Your task to perform on an android device: install app "PUBG MOBILE" Image 0: 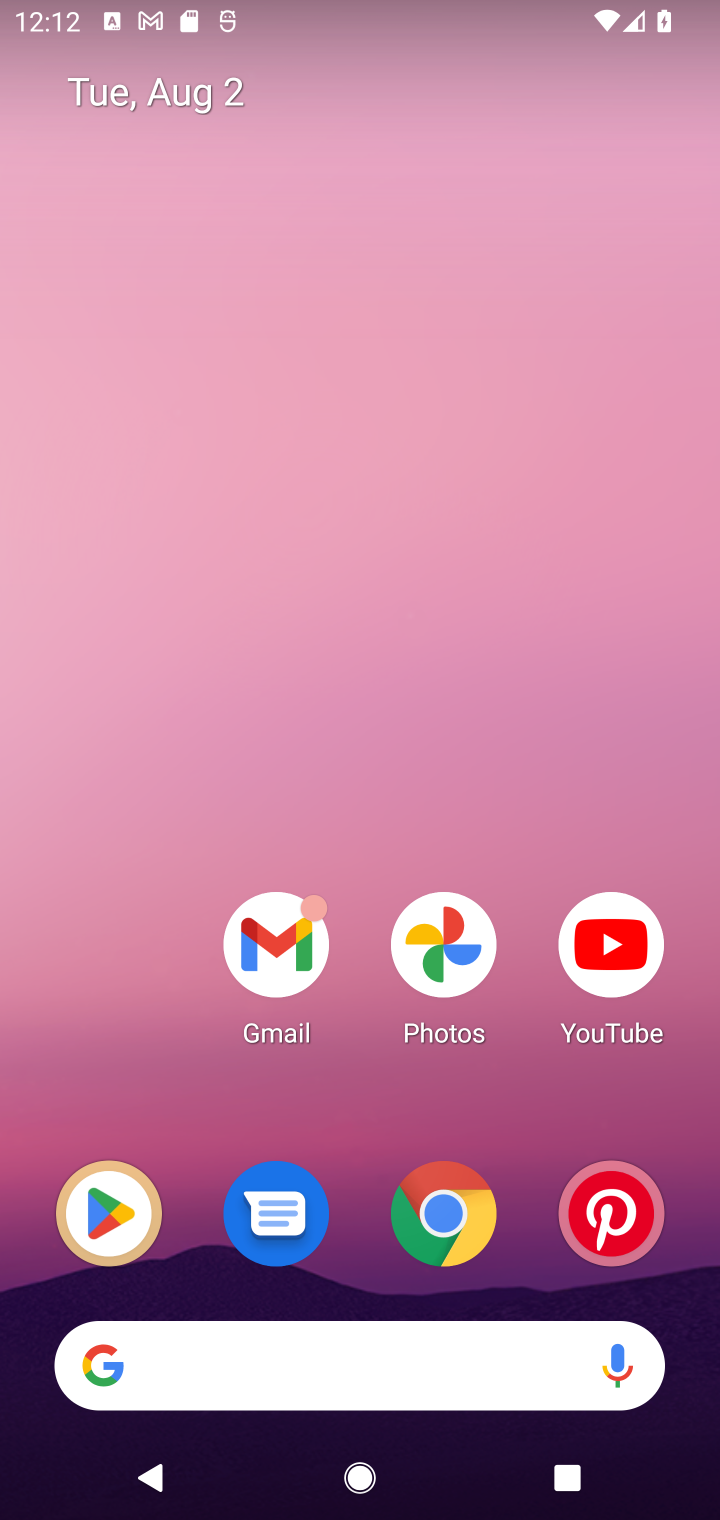
Step 0: click (93, 1215)
Your task to perform on an android device: install app "PUBG MOBILE" Image 1: 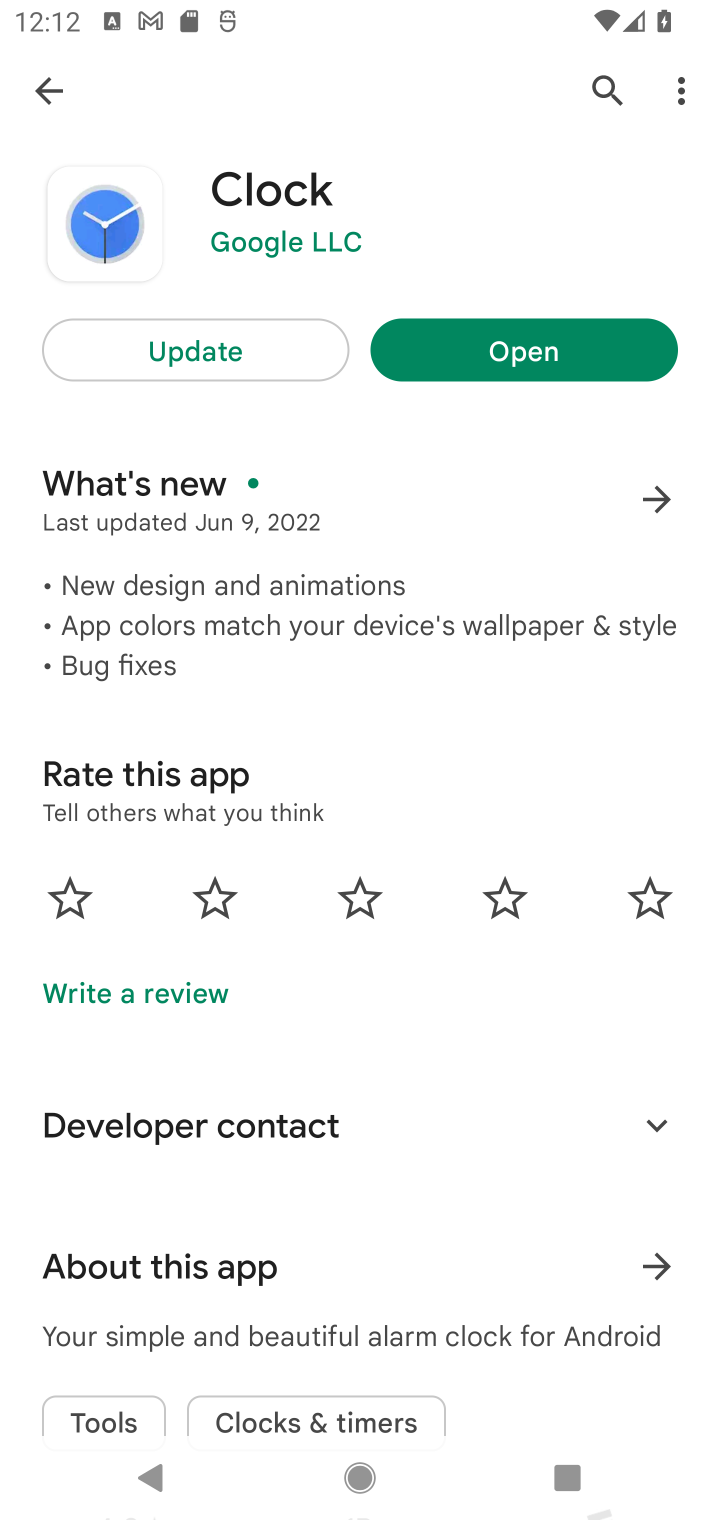
Step 1: click (42, 90)
Your task to perform on an android device: install app "PUBG MOBILE" Image 2: 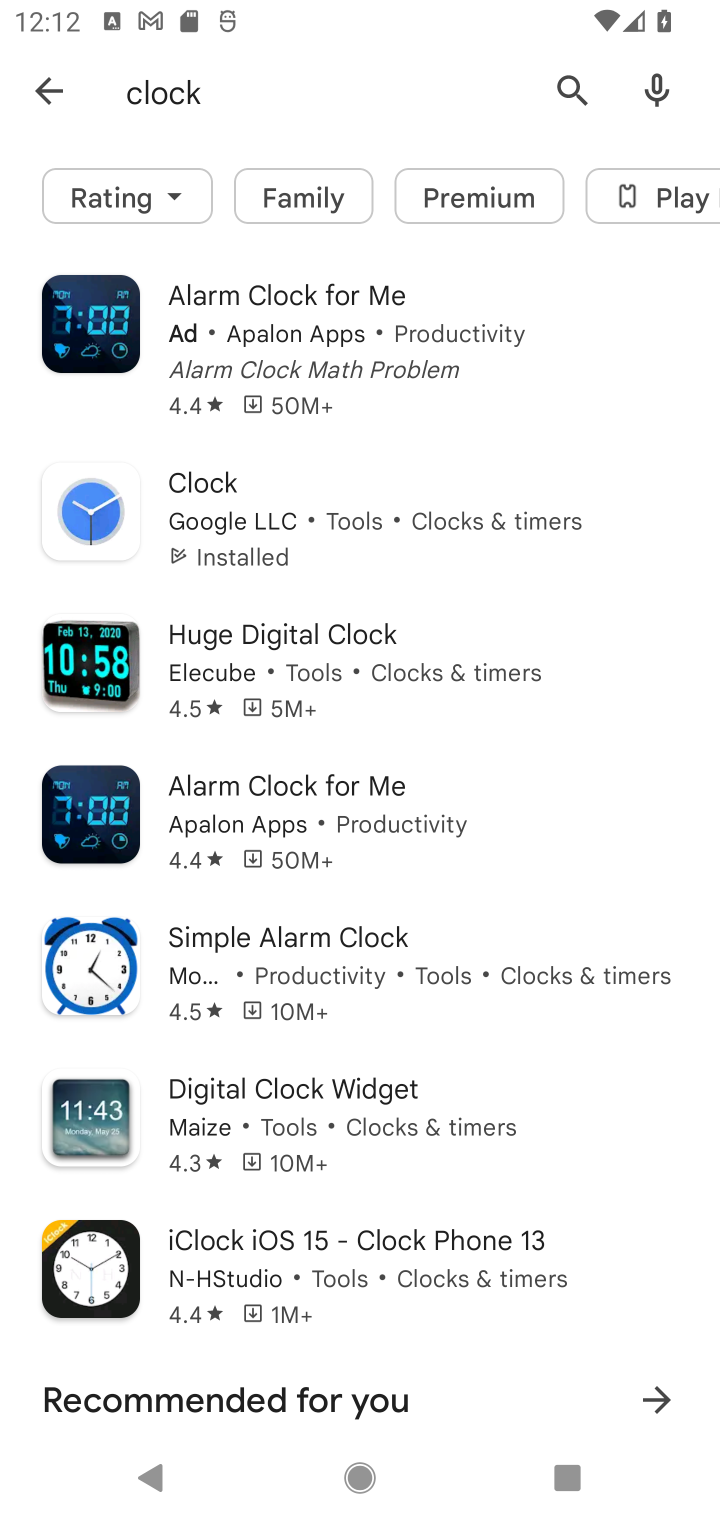
Step 2: click (39, 72)
Your task to perform on an android device: install app "PUBG MOBILE" Image 3: 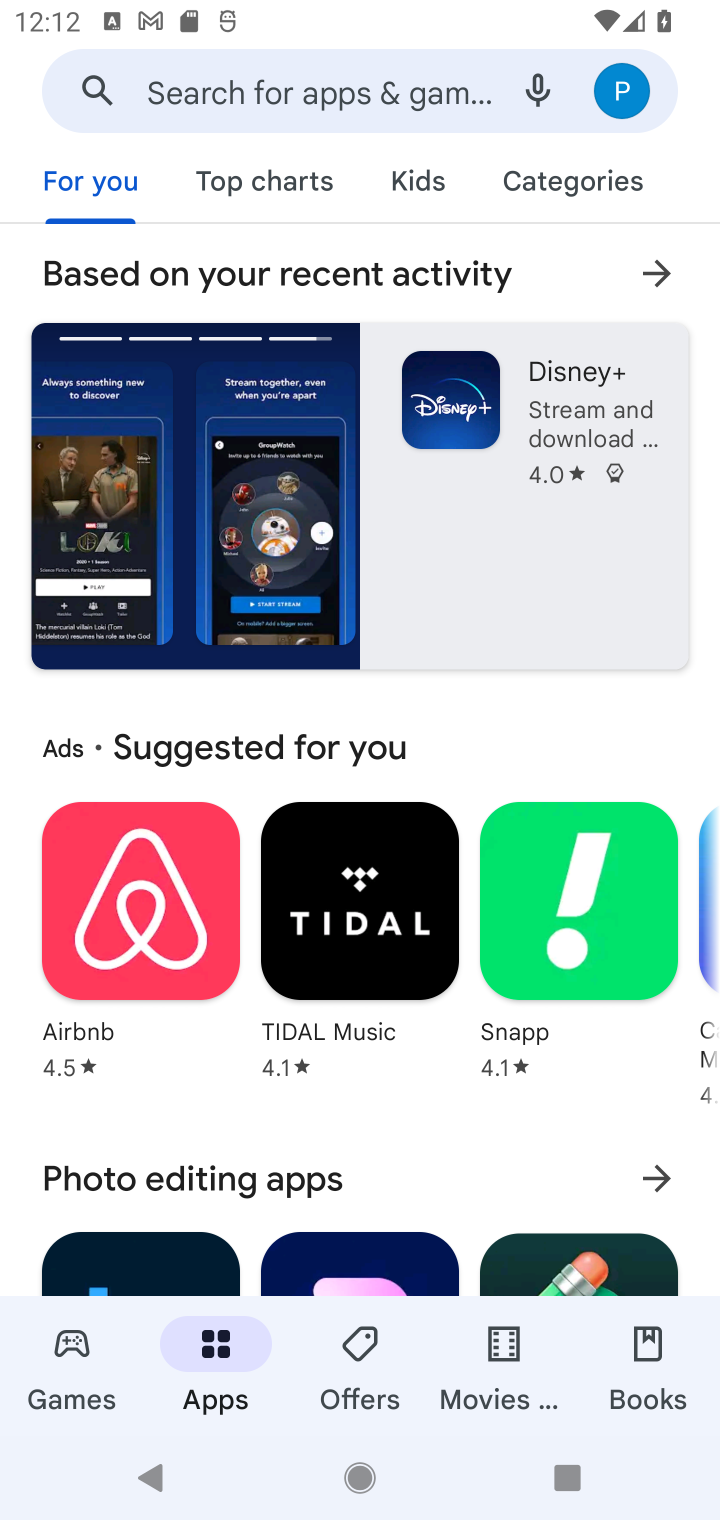
Step 3: click (283, 99)
Your task to perform on an android device: install app "PUBG MOBILE" Image 4: 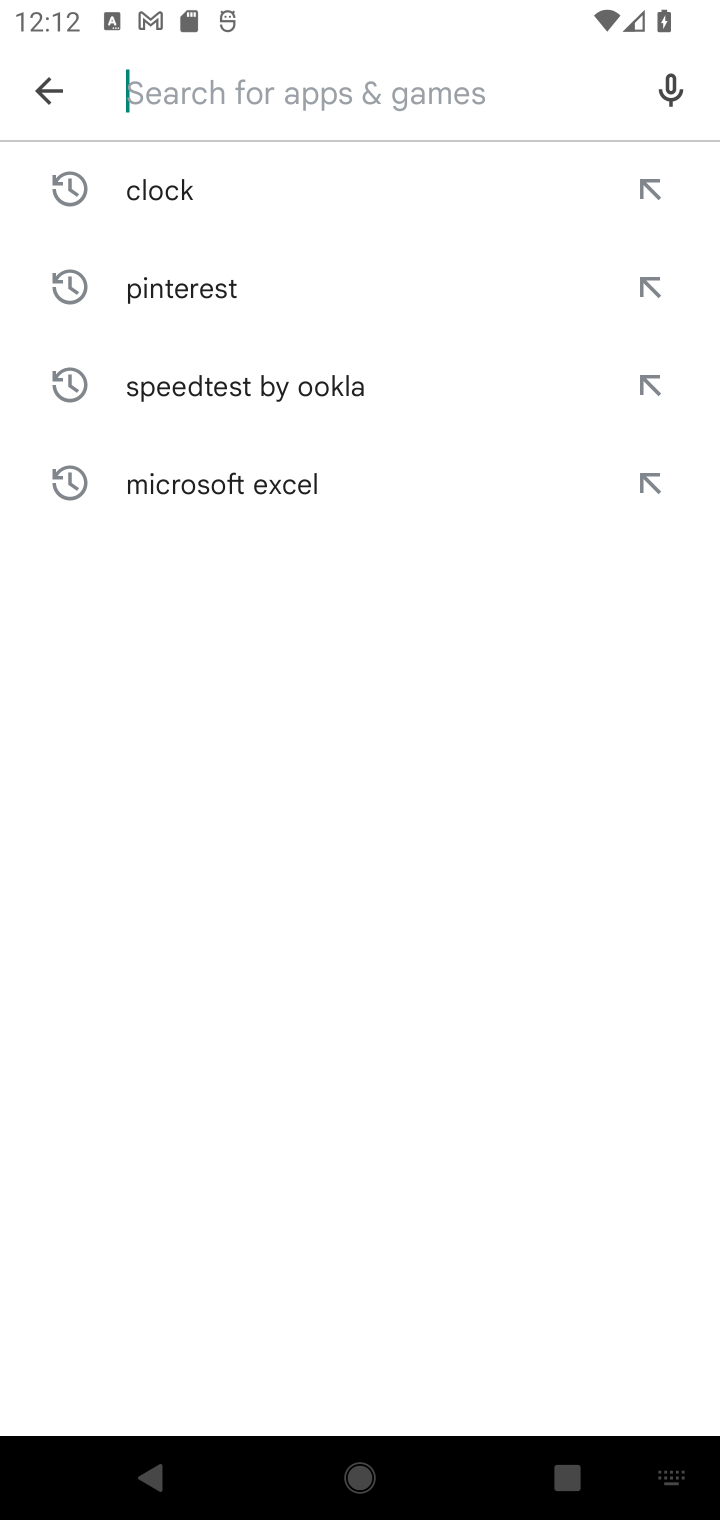
Step 4: type "PUBG MOBILE"
Your task to perform on an android device: install app "PUBG MOBILE" Image 5: 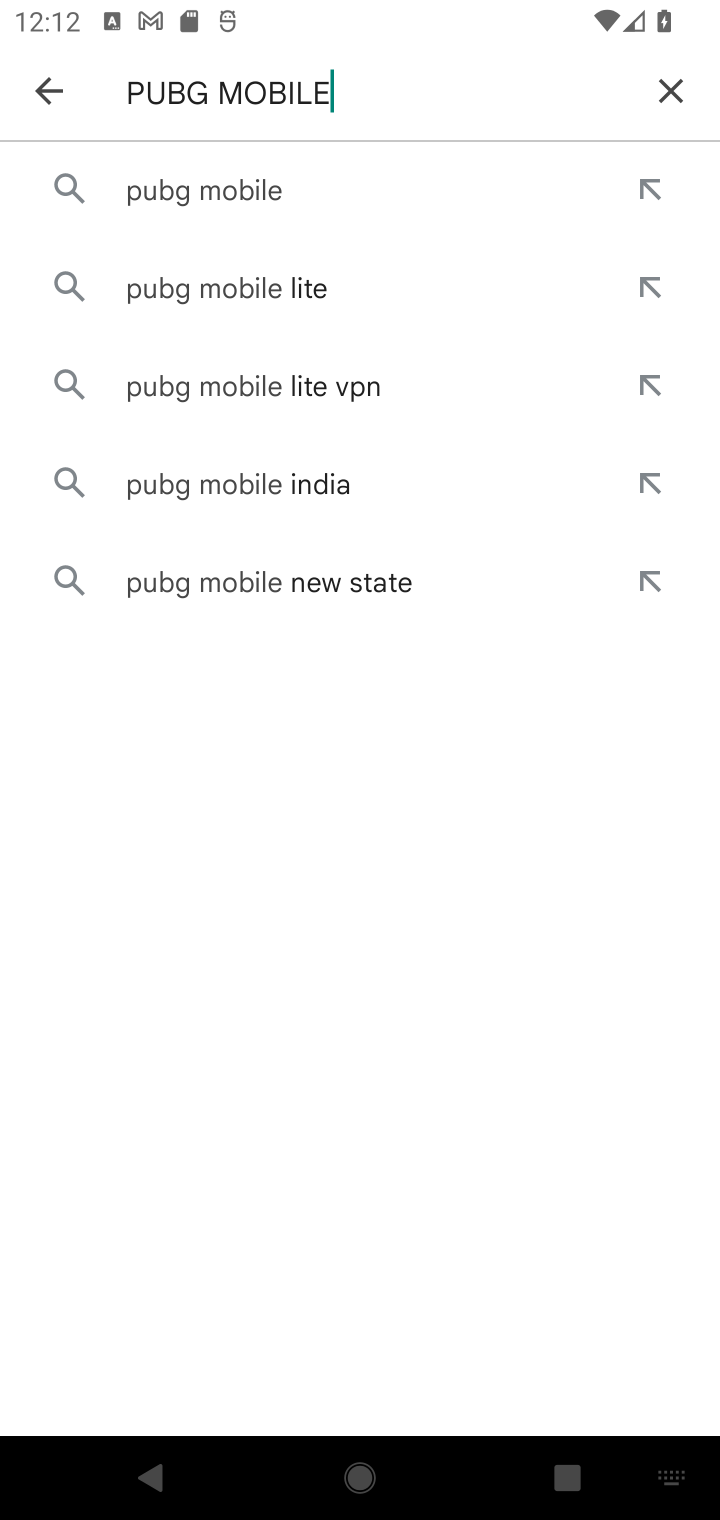
Step 5: click (199, 188)
Your task to perform on an android device: install app "PUBG MOBILE" Image 6: 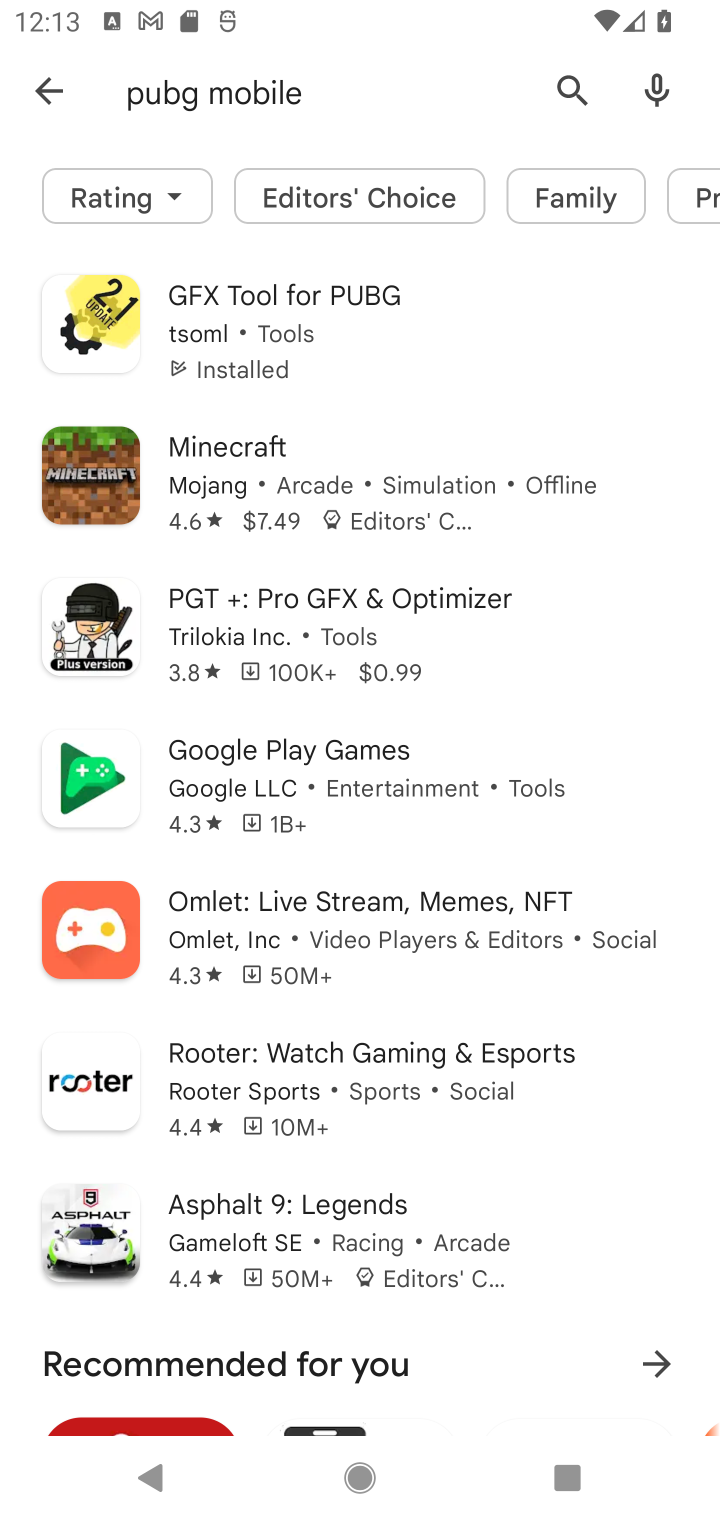
Step 6: click (210, 320)
Your task to perform on an android device: install app "PUBG MOBILE" Image 7: 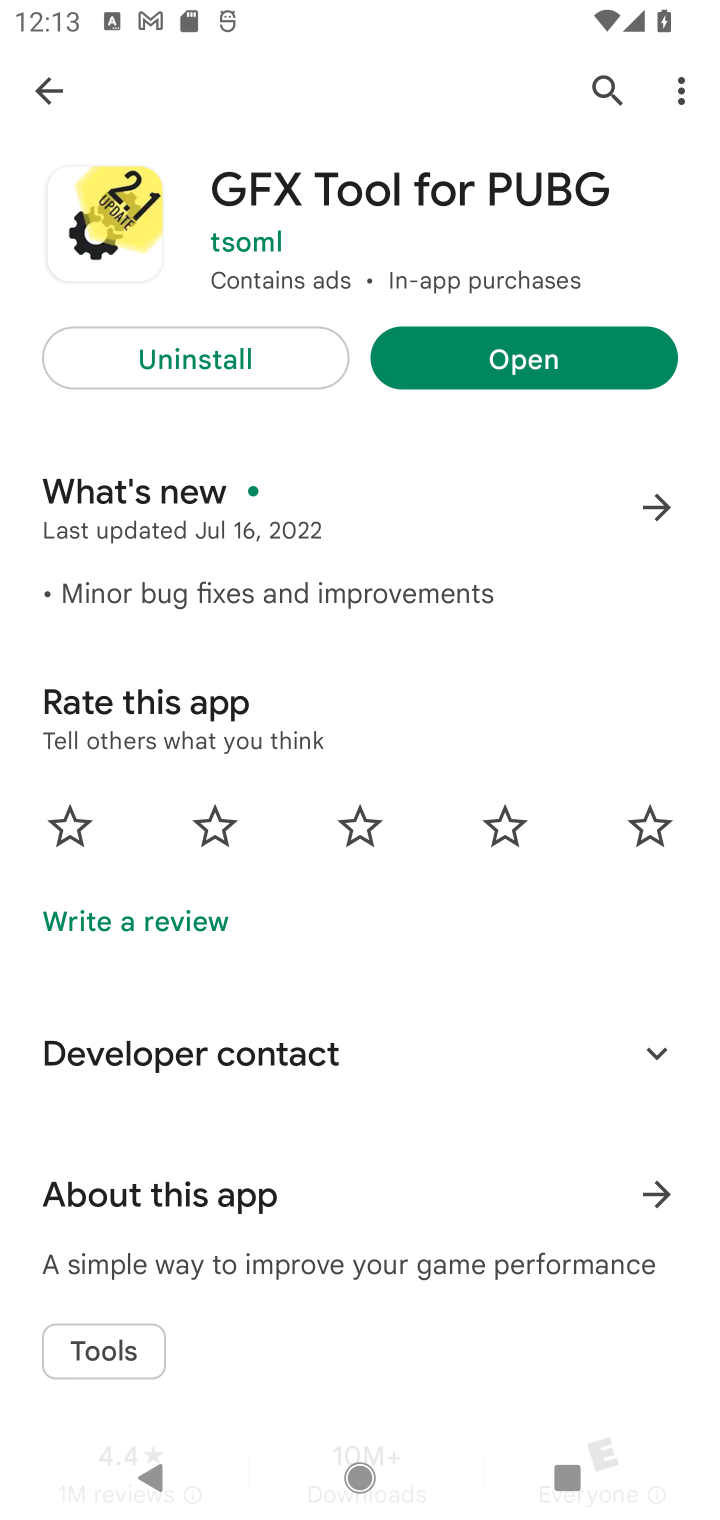
Step 7: click (458, 360)
Your task to perform on an android device: install app "PUBG MOBILE" Image 8: 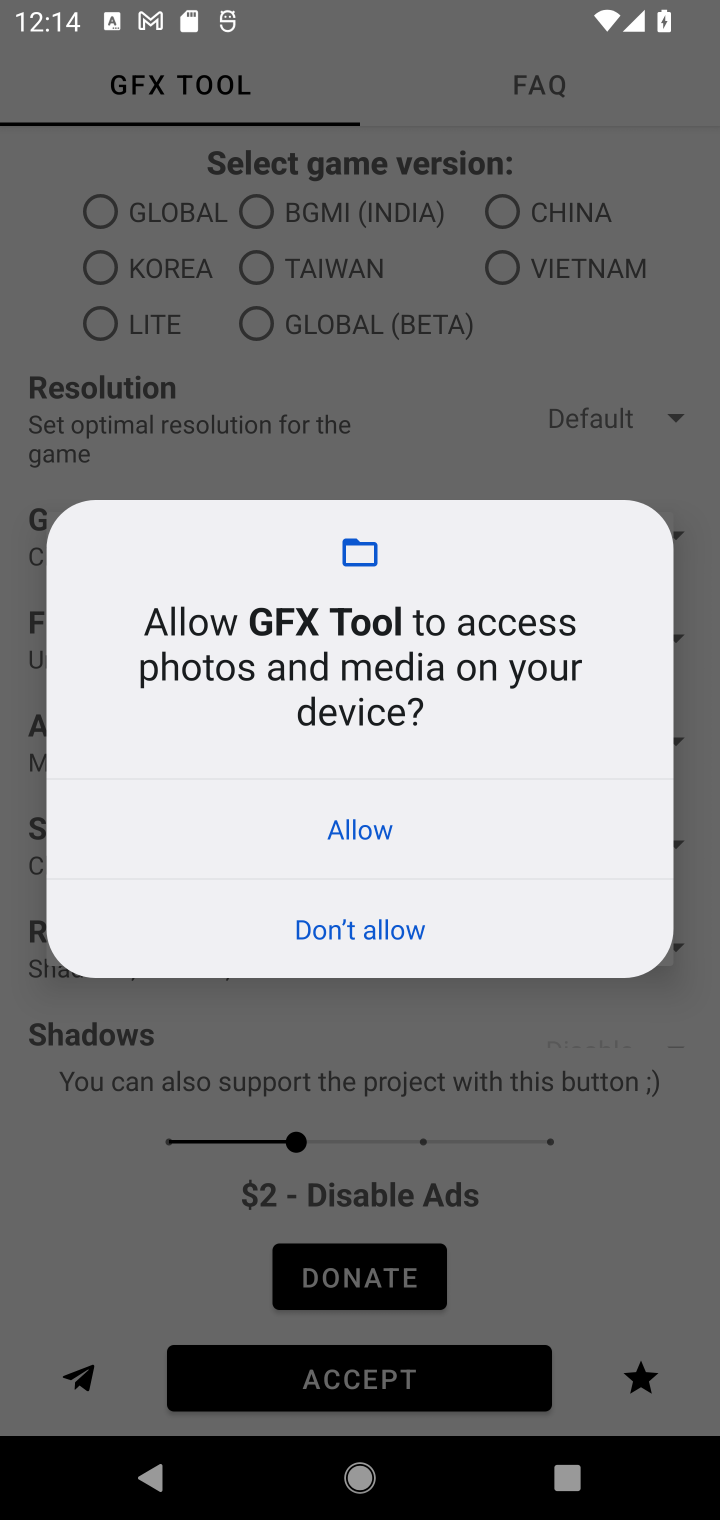
Step 8: task complete